Your task to perform on an android device: Go to accessibility settings Image 0: 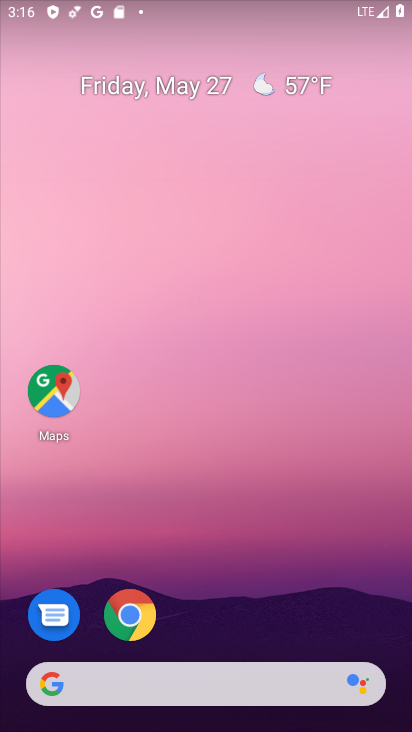
Step 0: drag from (192, 631) to (198, 83)
Your task to perform on an android device: Go to accessibility settings Image 1: 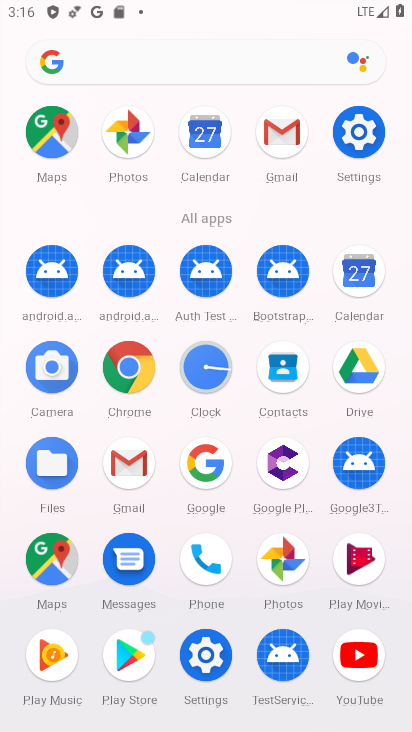
Step 1: click (352, 137)
Your task to perform on an android device: Go to accessibility settings Image 2: 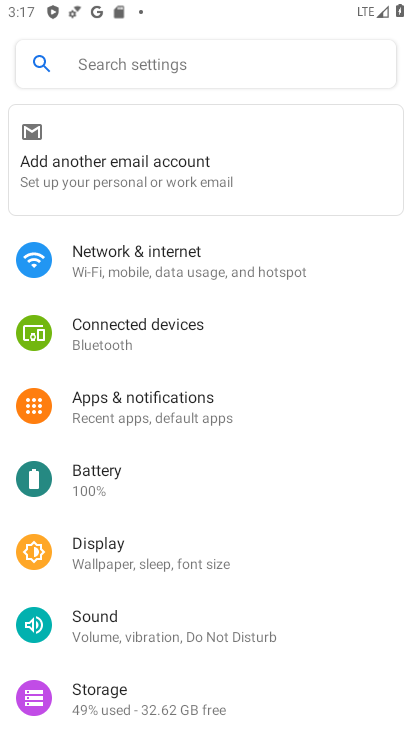
Step 2: drag from (161, 598) to (168, 172)
Your task to perform on an android device: Go to accessibility settings Image 3: 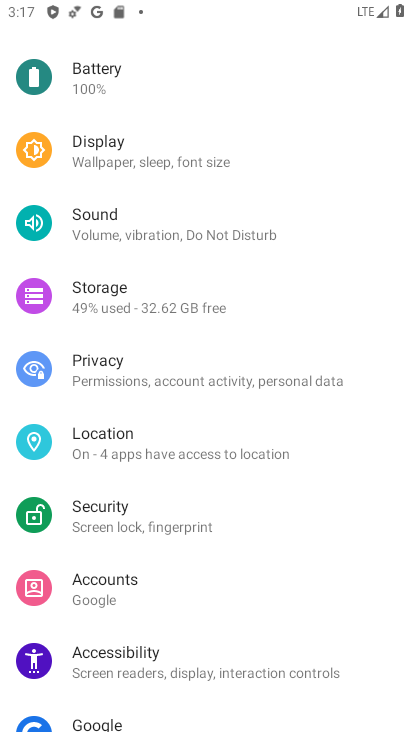
Step 3: click (147, 661)
Your task to perform on an android device: Go to accessibility settings Image 4: 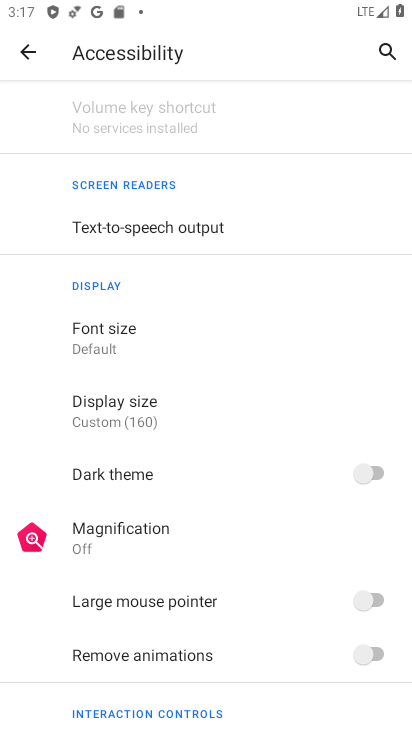
Step 4: task complete